Your task to perform on an android device: toggle priority inbox in the gmail app Image 0: 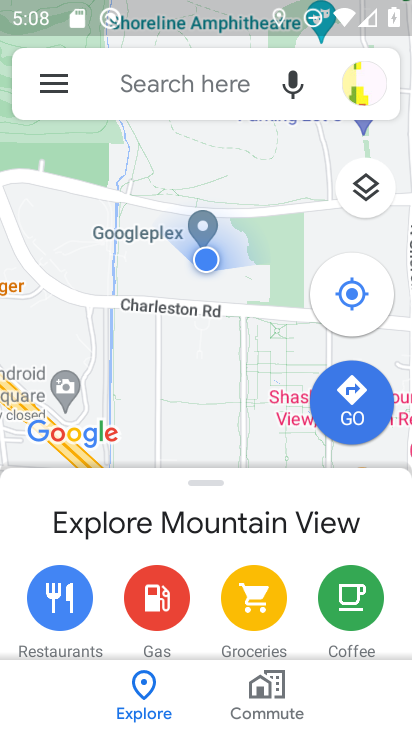
Step 0: click (189, 93)
Your task to perform on an android device: toggle priority inbox in the gmail app Image 1: 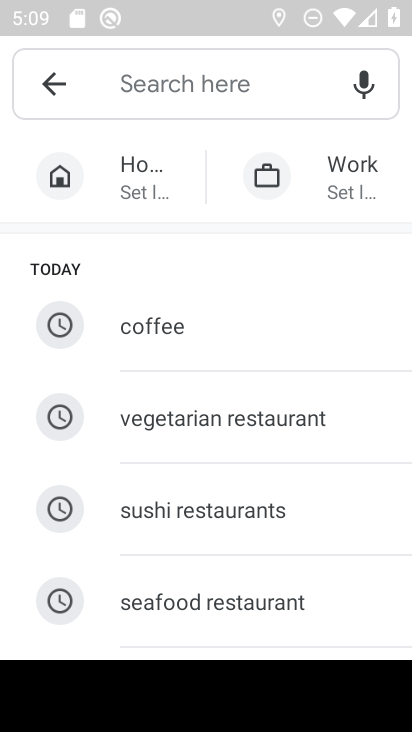
Step 1: press back button
Your task to perform on an android device: toggle priority inbox in the gmail app Image 2: 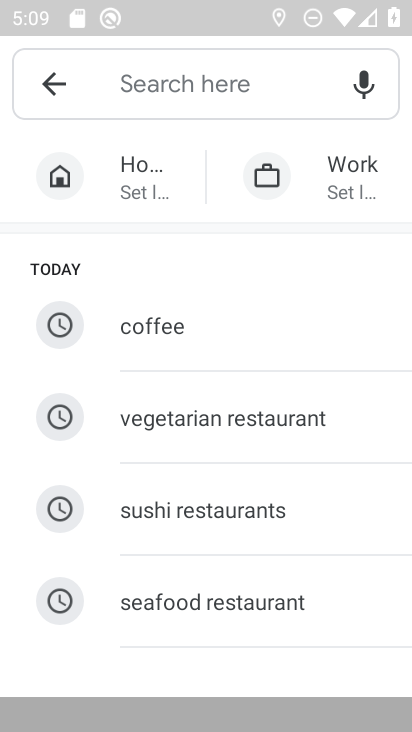
Step 2: press back button
Your task to perform on an android device: toggle priority inbox in the gmail app Image 3: 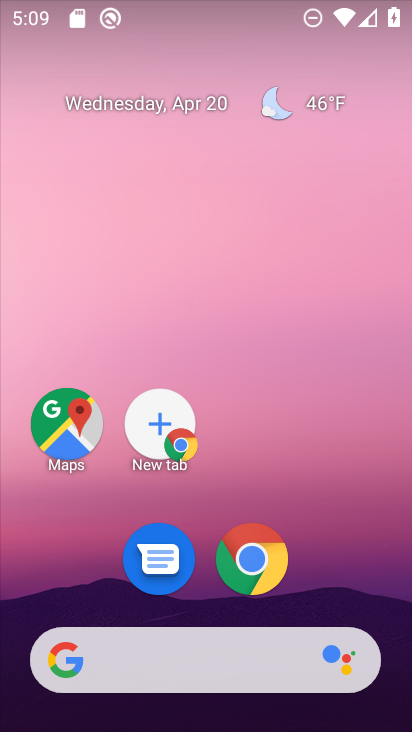
Step 3: press back button
Your task to perform on an android device: toggle priority inbox in the gmail app Image 4: 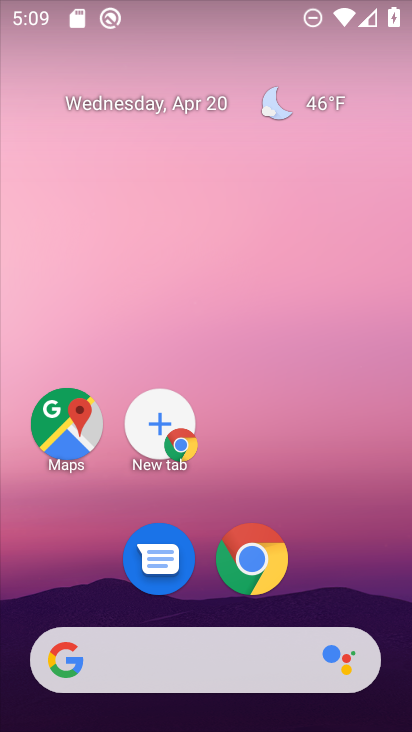
Step 4: drag from (365, 536) to (324, 164)
Your task to perform on an android device: toggle priority inbox in the gmail app Image 5: 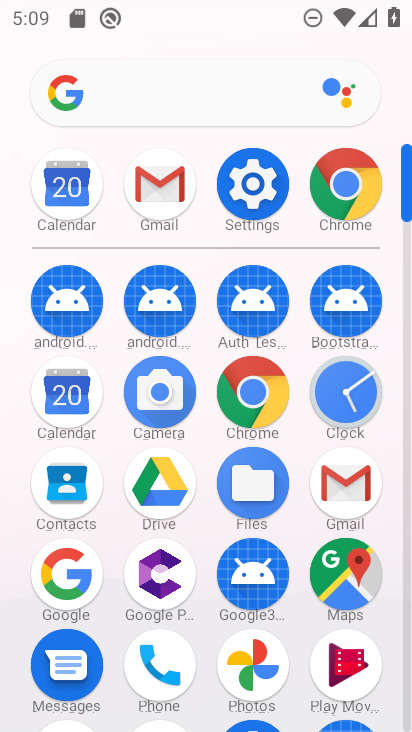
Step 5: click (155, 187)
Your task to perform on an android device: toggle priority inbox in the gmail app Image 6: 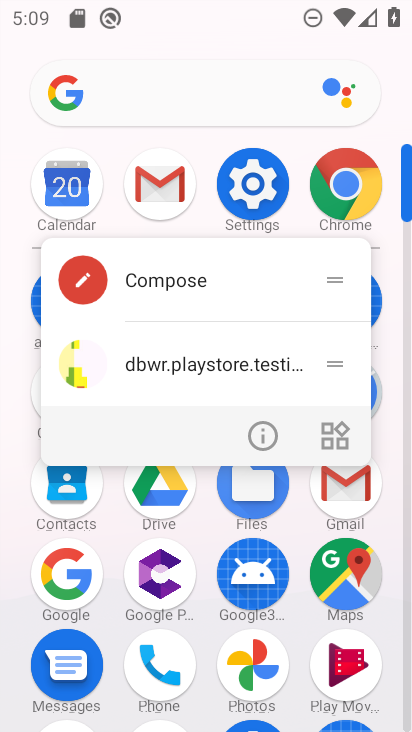
Step 6: click (169, 207)
Your task to perform on an android device: toggle priority inbox in the gmail app Image 7: 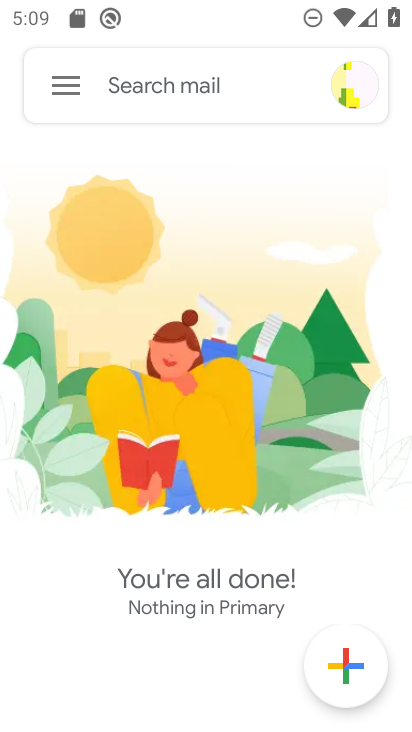
Step 7: click (66, 98)
Your task to perform on an android device: toggle priority inbox in the gmail app Image 8: 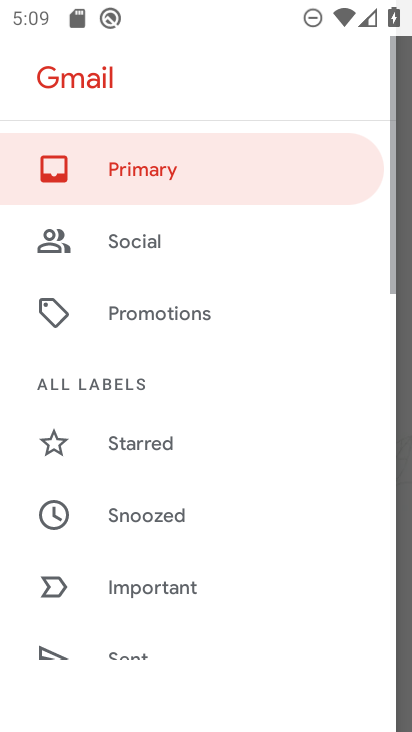
Step 8: drag from (79, 595) to (115, 296)
Your task to perform on an android device: toggle priority inbox in the gmail app Image 9: 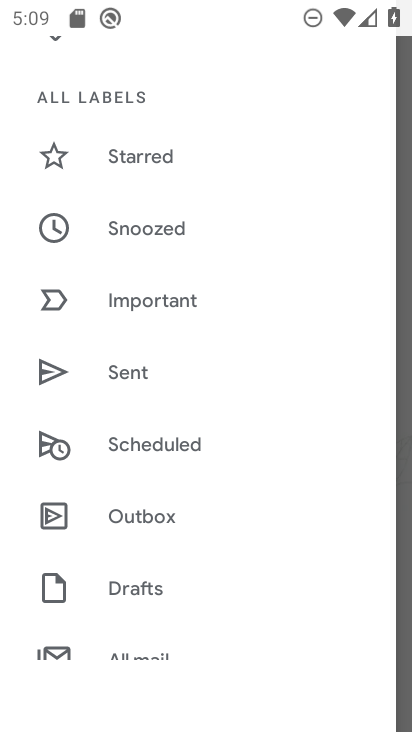
Step 9: drag from (125, 616) to (181, 317)
Your task to perform on an android device: toggle priority inbox in the gmail app Image 10: 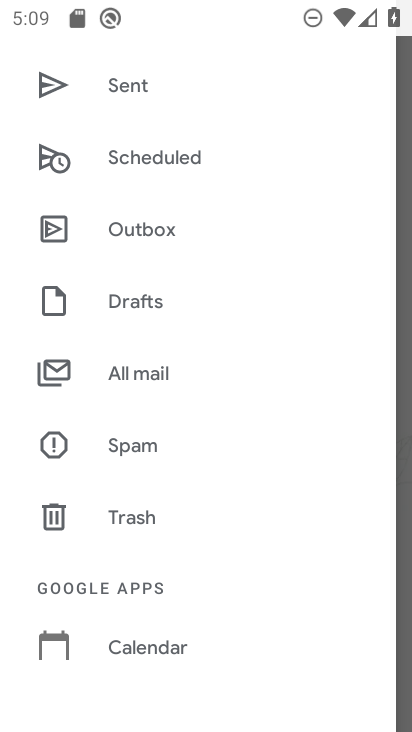
Step 10: drag from (143, 586) to (201, 303)
Your task to perform on an android device: toggle priority inbox in the gmail app Image 11: 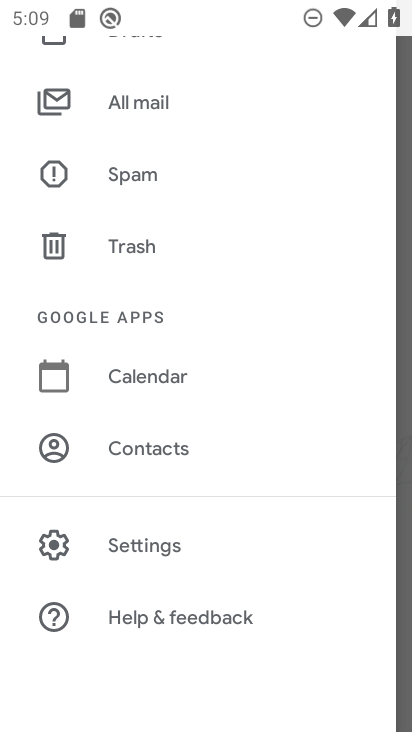
Step 11: click (230, 546)
Your task to perform on an android device: toggle priority inbox in the gmail app Image 12: 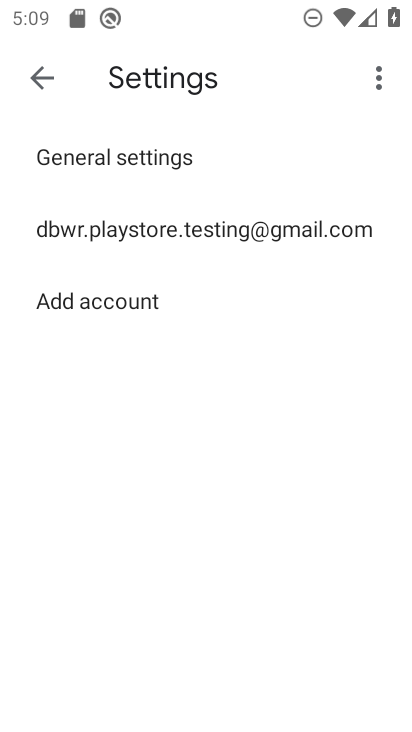
Step 12: click (194, 244)
Your task to perform on an android device: toggle priority inbox in the gmail app Image 13: 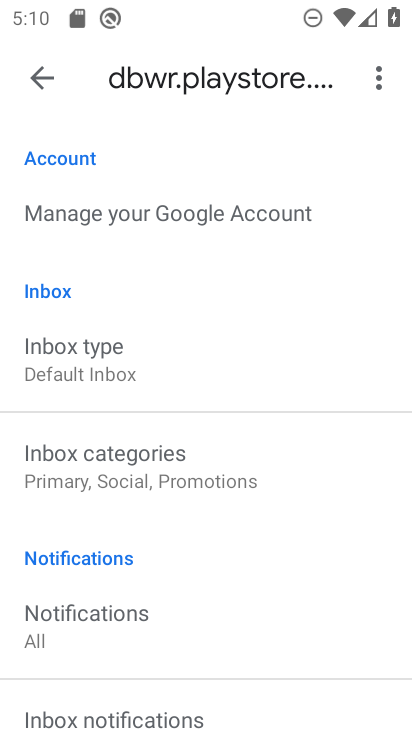
Step 13: drag from (171, 546) to (204, 332)
Your task to perform on an android device: toggle priority inbox in the gmail app Image 14: 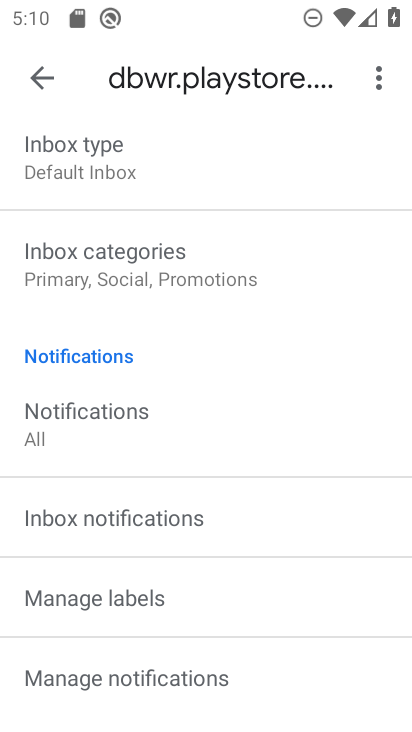
Step 14: click (185, 181)
Your task to perform on an android device: toggle priority inbox in the gmail app Image 15: 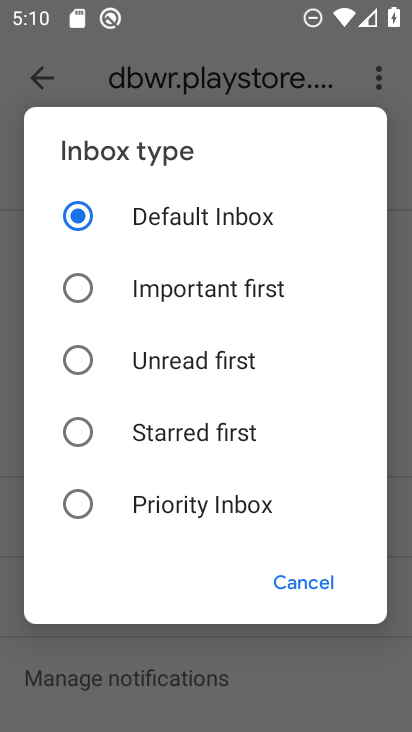
Step 15: click (200, 484)
Your task to perform on an android device: toggle priority inbox in the gmail app Image 16: 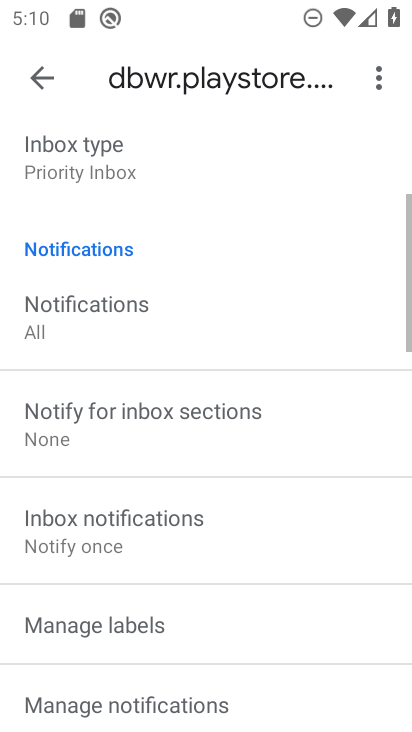
Step 16: task complete